Your task to perform on an android device: Is it going to rain tomorrow? Image 0: 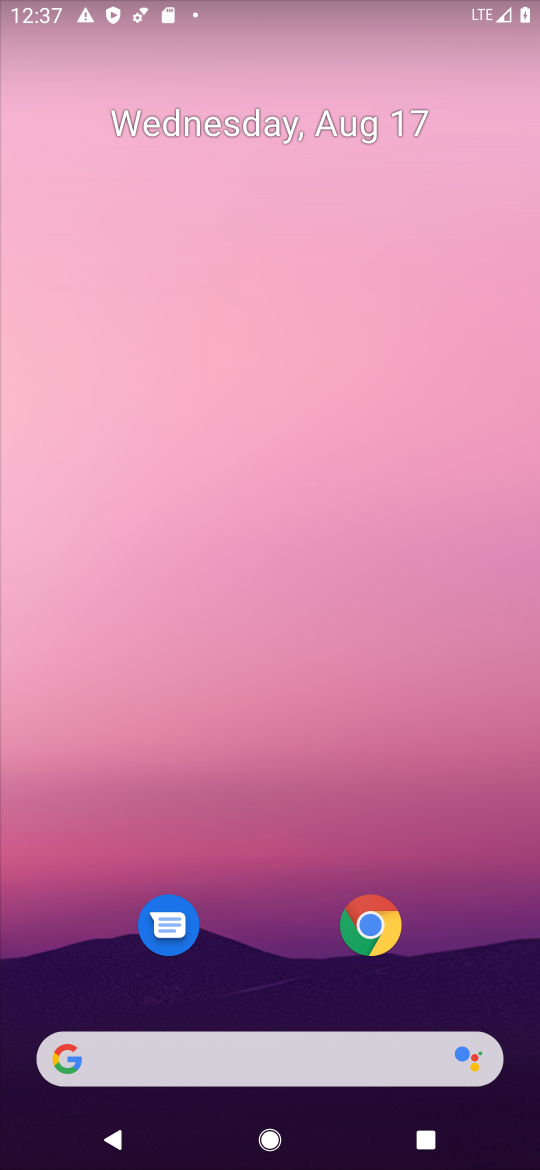
Step 0: click (325, 1046)
Your task to perform on an android device: Is it going to rain tomorrow? Image 1: 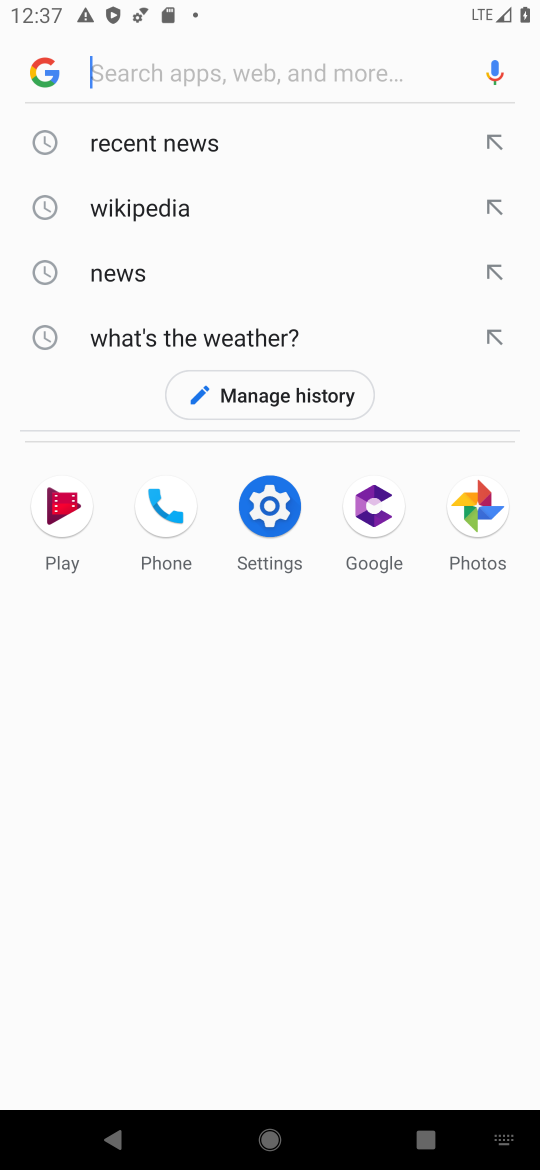
Step 1: click (173, 332)
Your task to perform on an android device: Is it going to rain tomorrow? Image 2: 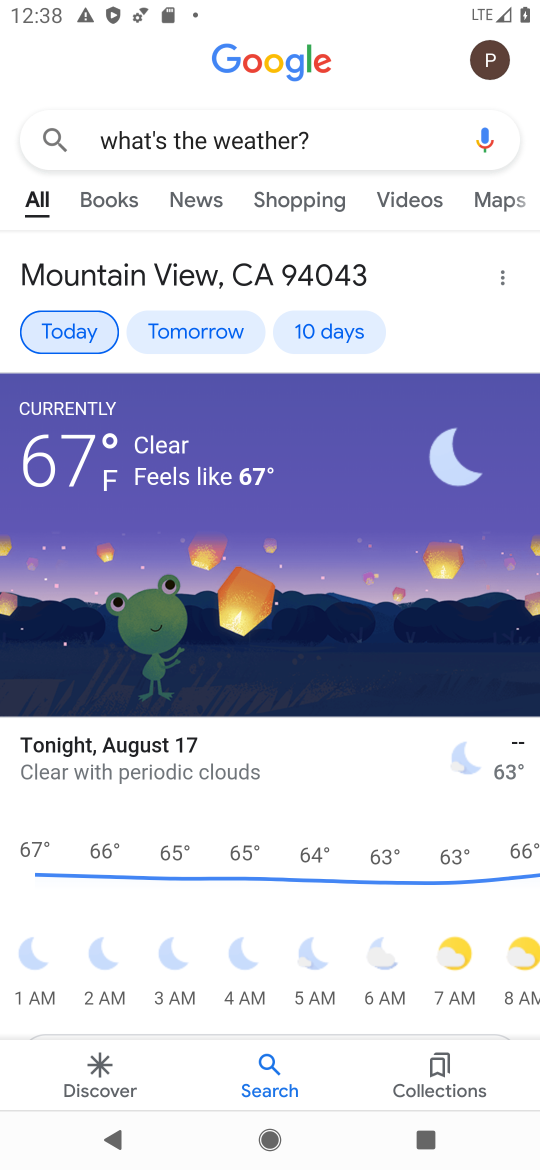
Step 2: click (193, 331)
Your task to perform on an android device: Is it going to rain tomorrow? Image 3: 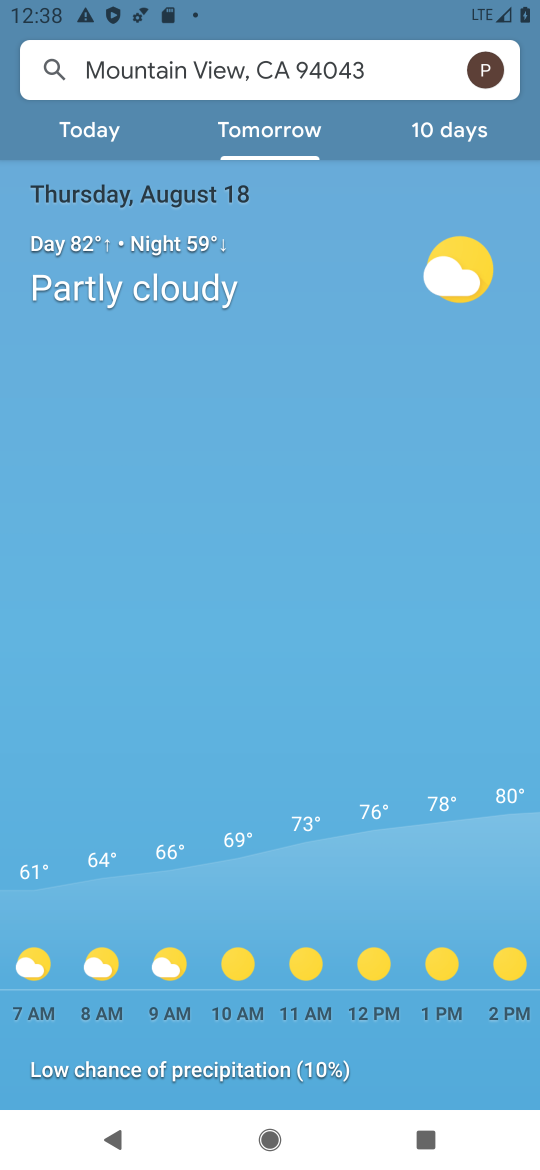
Step 3: task complete